Your task to perform on an android device: What's the news in Cambodia? Image 0: 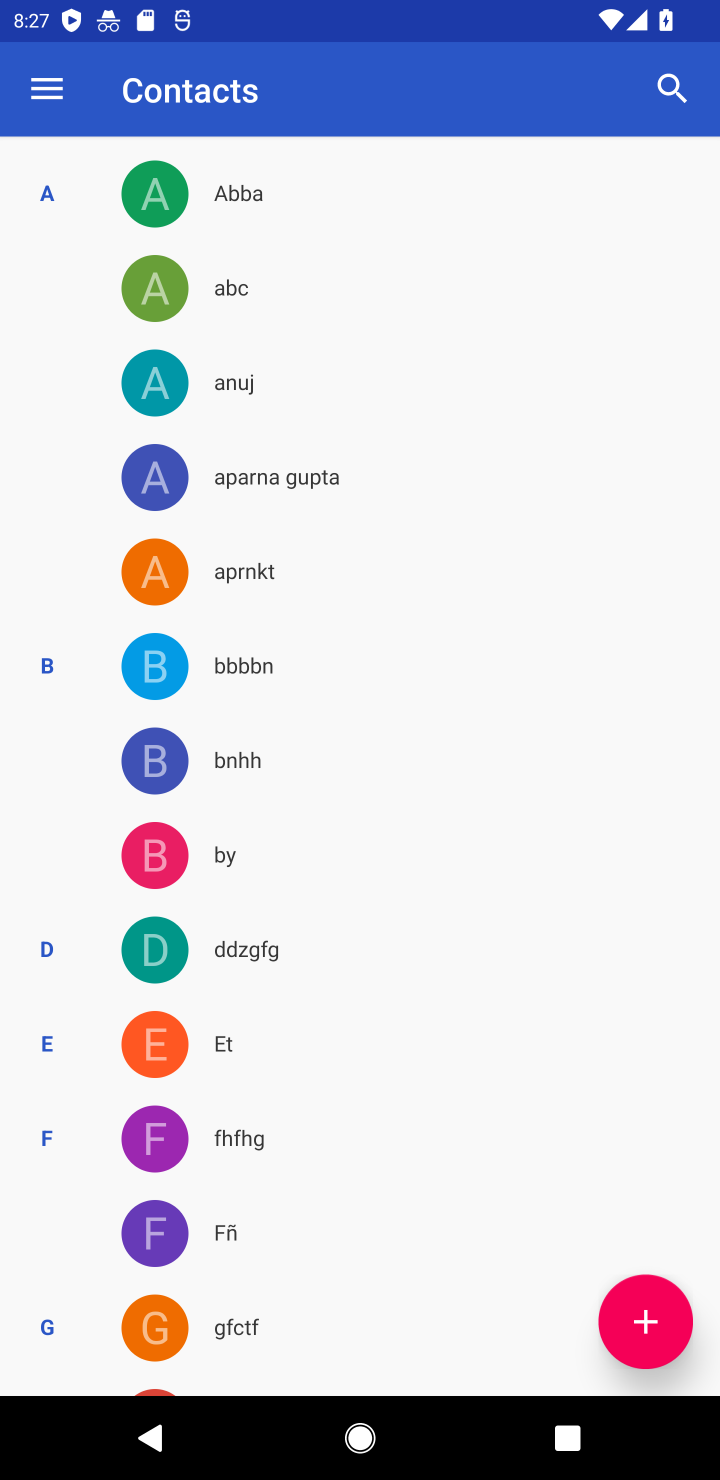
Step 0: press home button
Your task to perform on an android device: What's the news in Cambodia? Image 1: 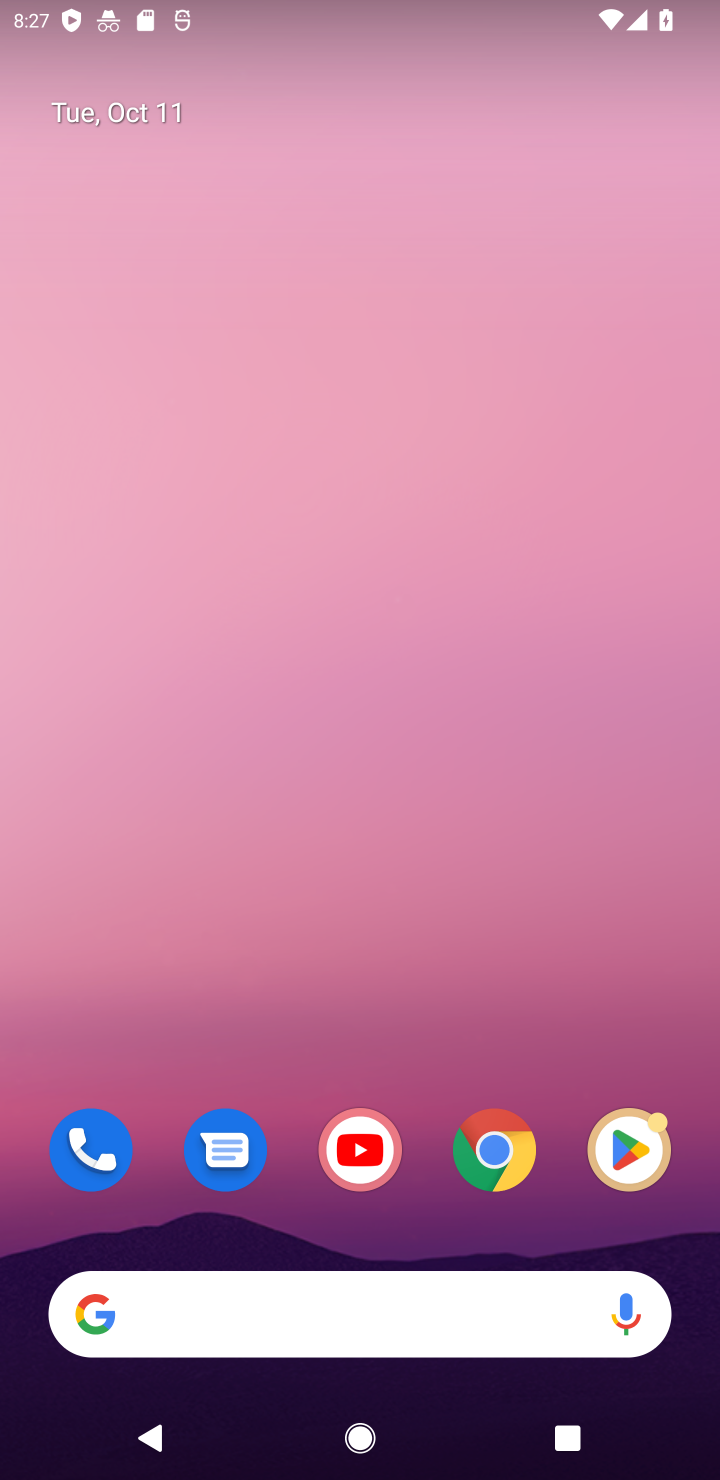
Step 1: click (509, 1171)
Your task to perform on an android device: What's the news in Cambodia? Image 2: 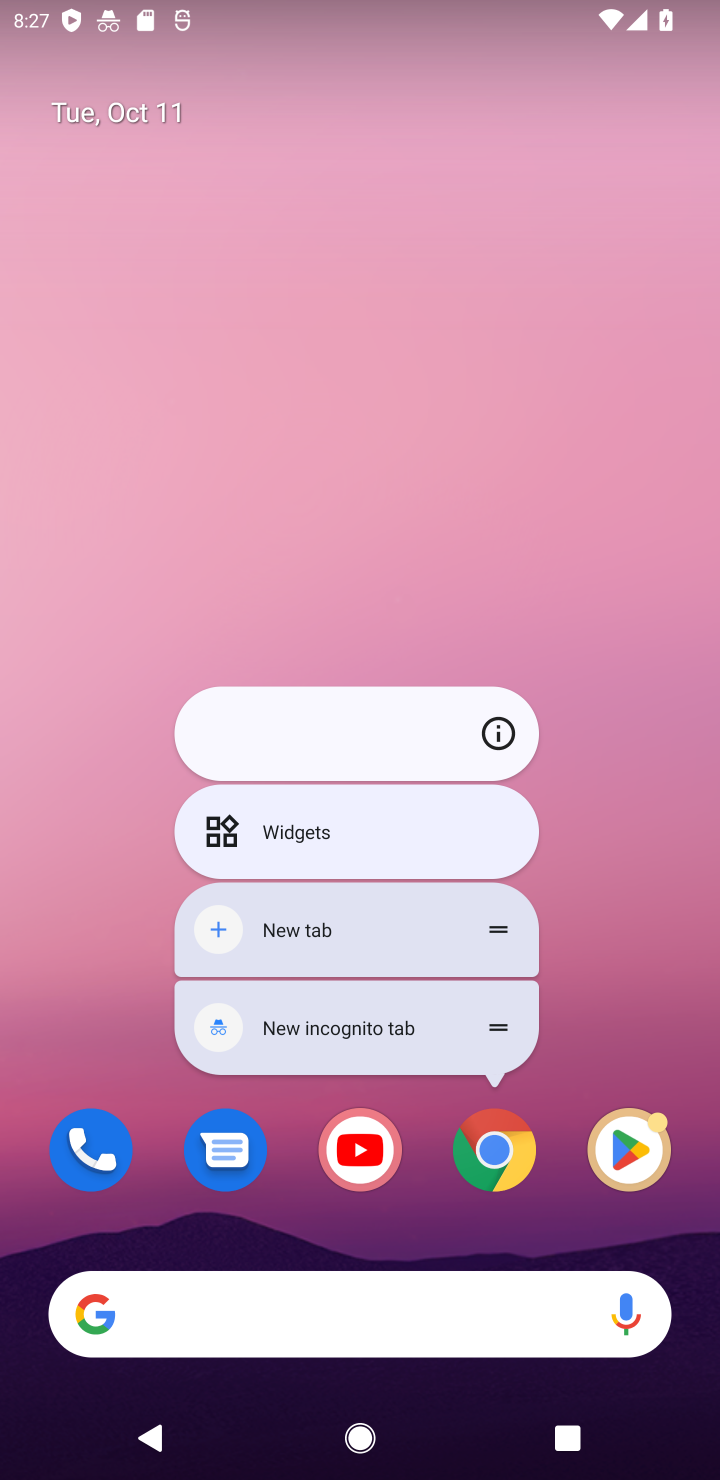
Step 2: click (488, 1155)
Your task to perform on an android device: What's the news in Cambodia? Image 3: 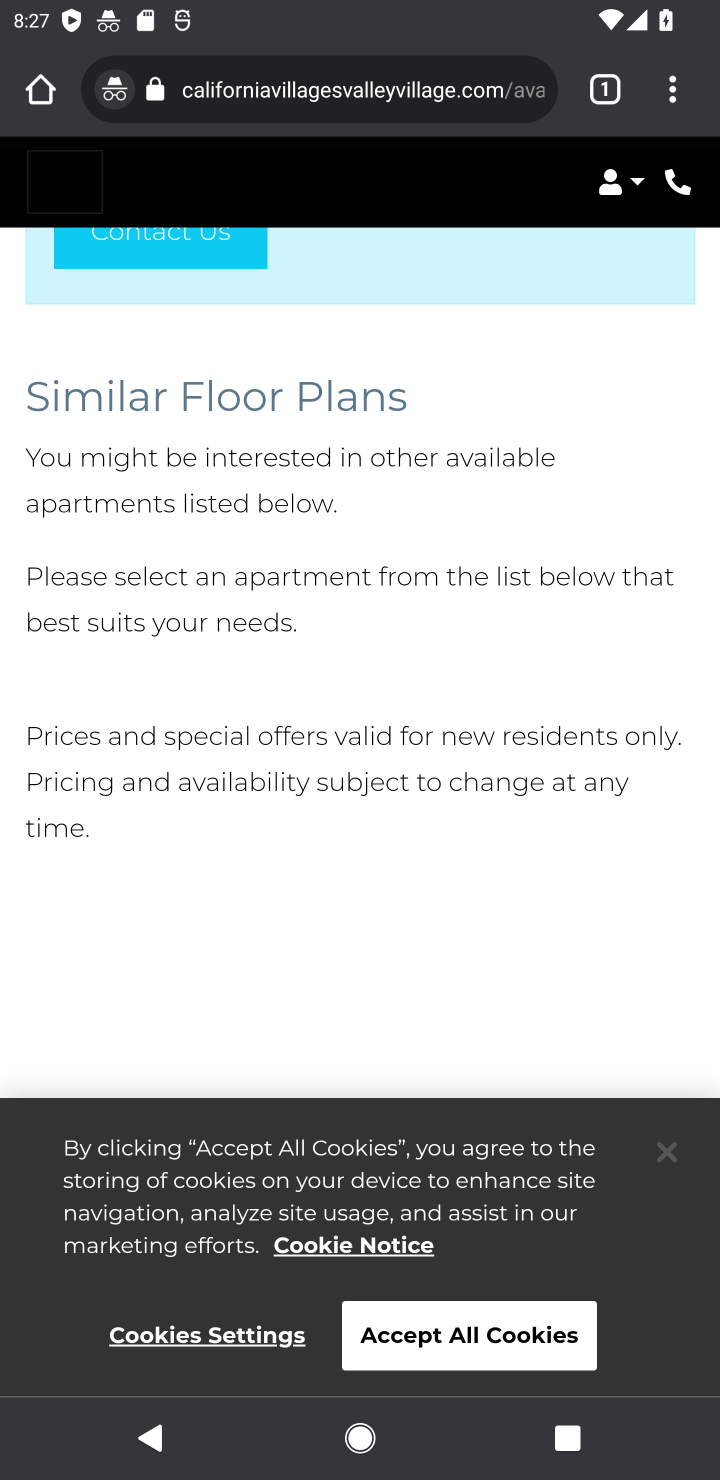
Step 3: click (311, 101)
Your task to perform on an android device: What's the news in Cambodia? Image 4: 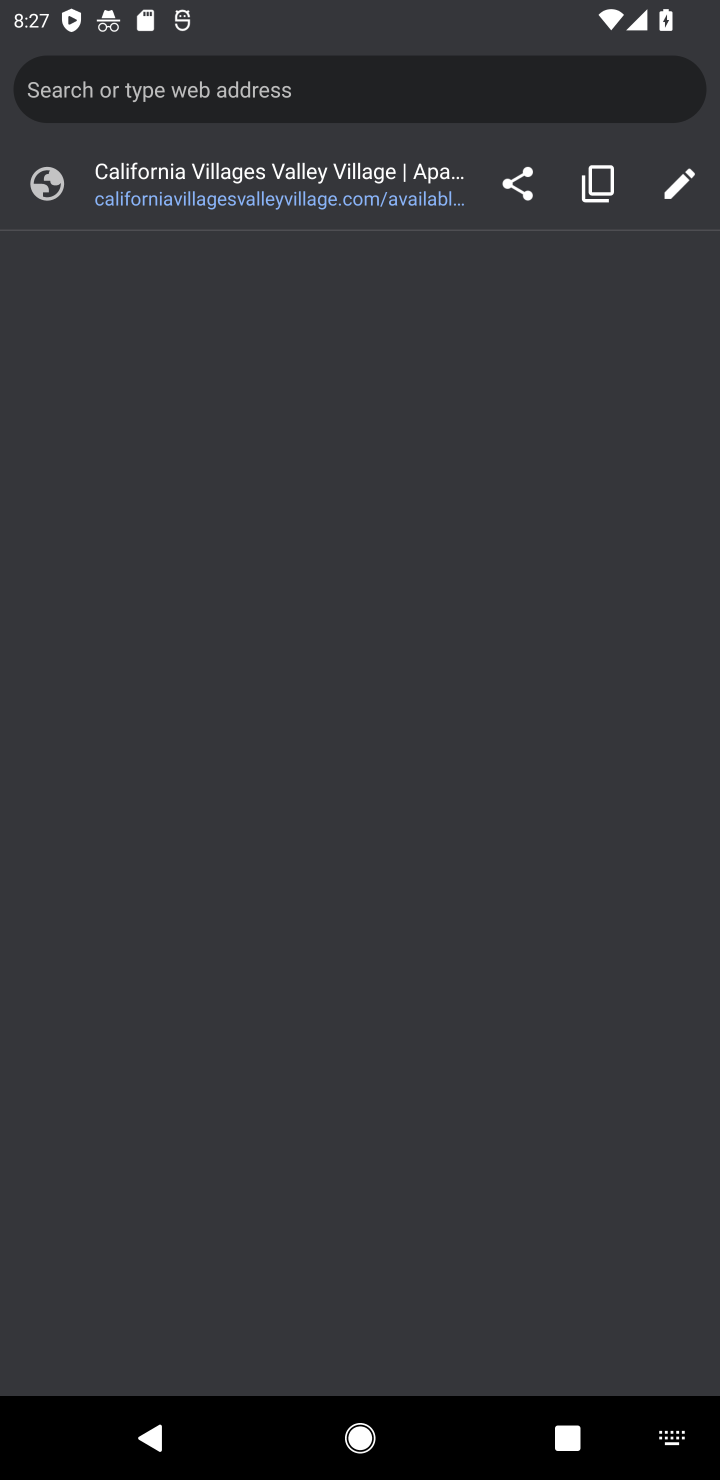
Step 4: type "cambodia"
Your task to perform on an android device: What's the news in Cambodia? Image 5: 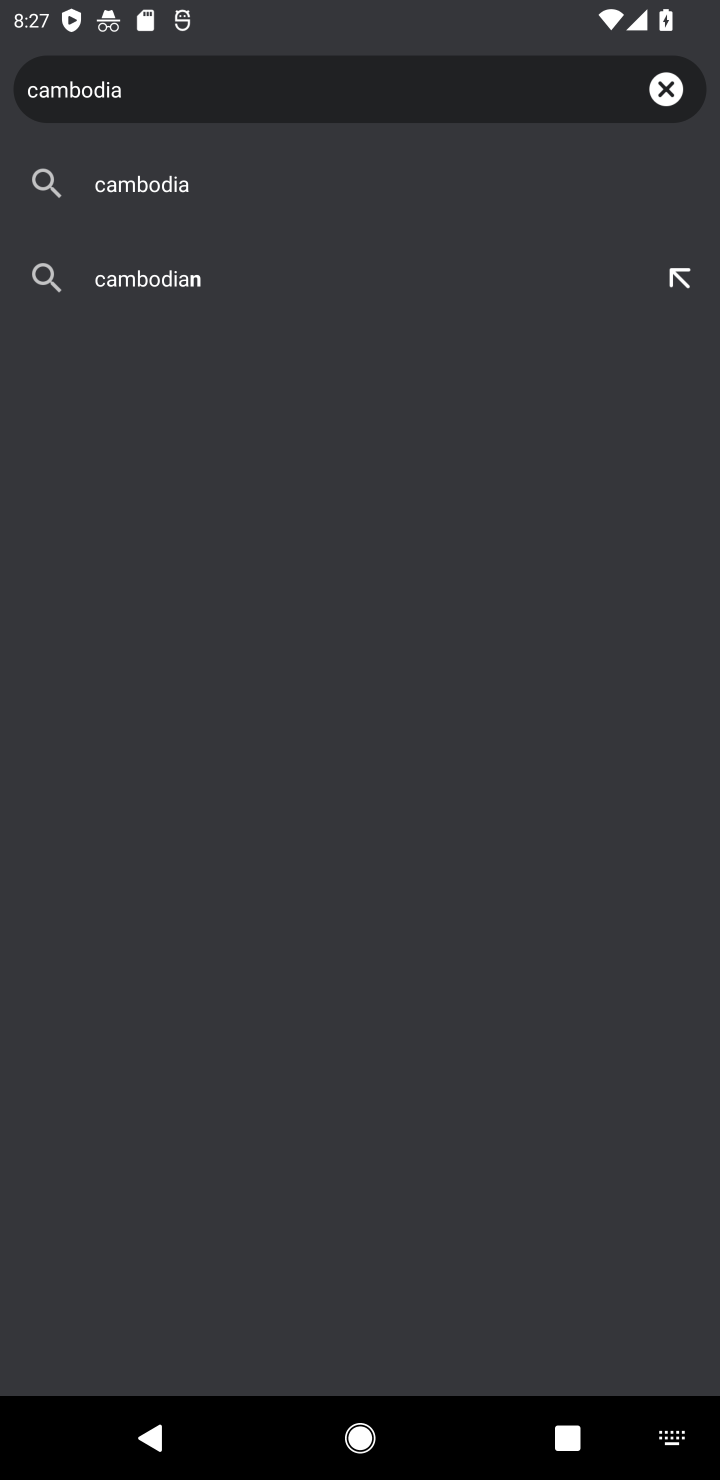
Step 5: click (154, 194)
Your task to perform on an android device: What's the news in Cambodia? Image 6: 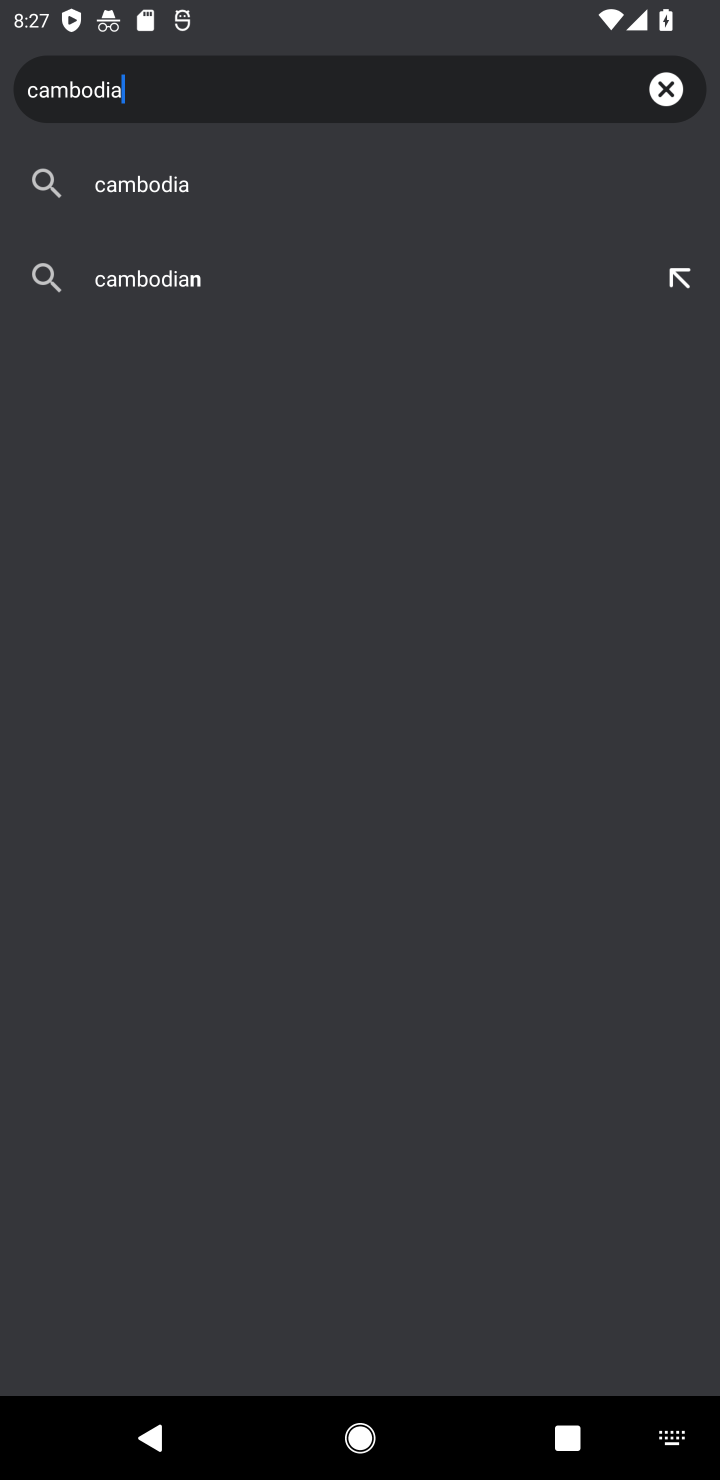
Step 6: click (158, 193)
Your task to perform on an android device: What's the news in Cambodia? Image 7: 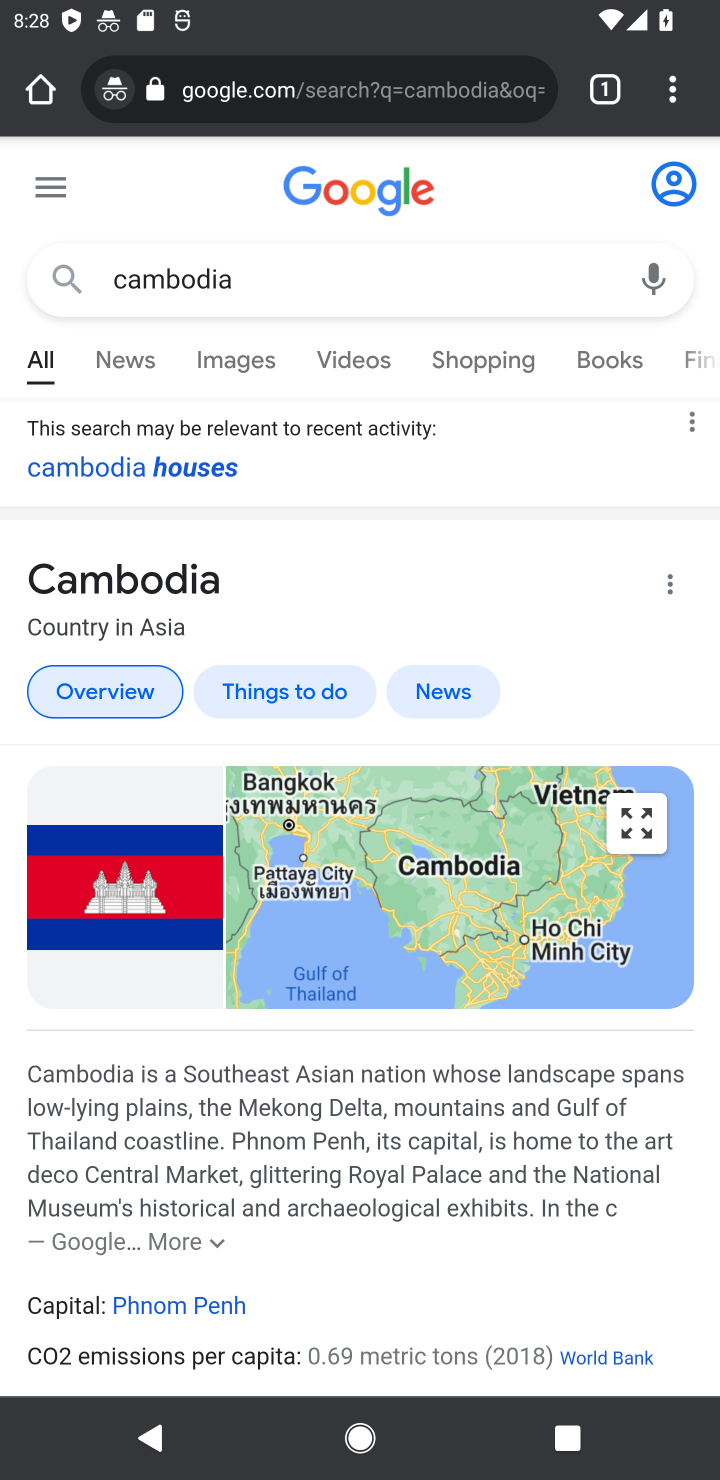
Step 7: click (114, 373)
Your task to perform on an android device: What's the news in Cambodia? Image 8: 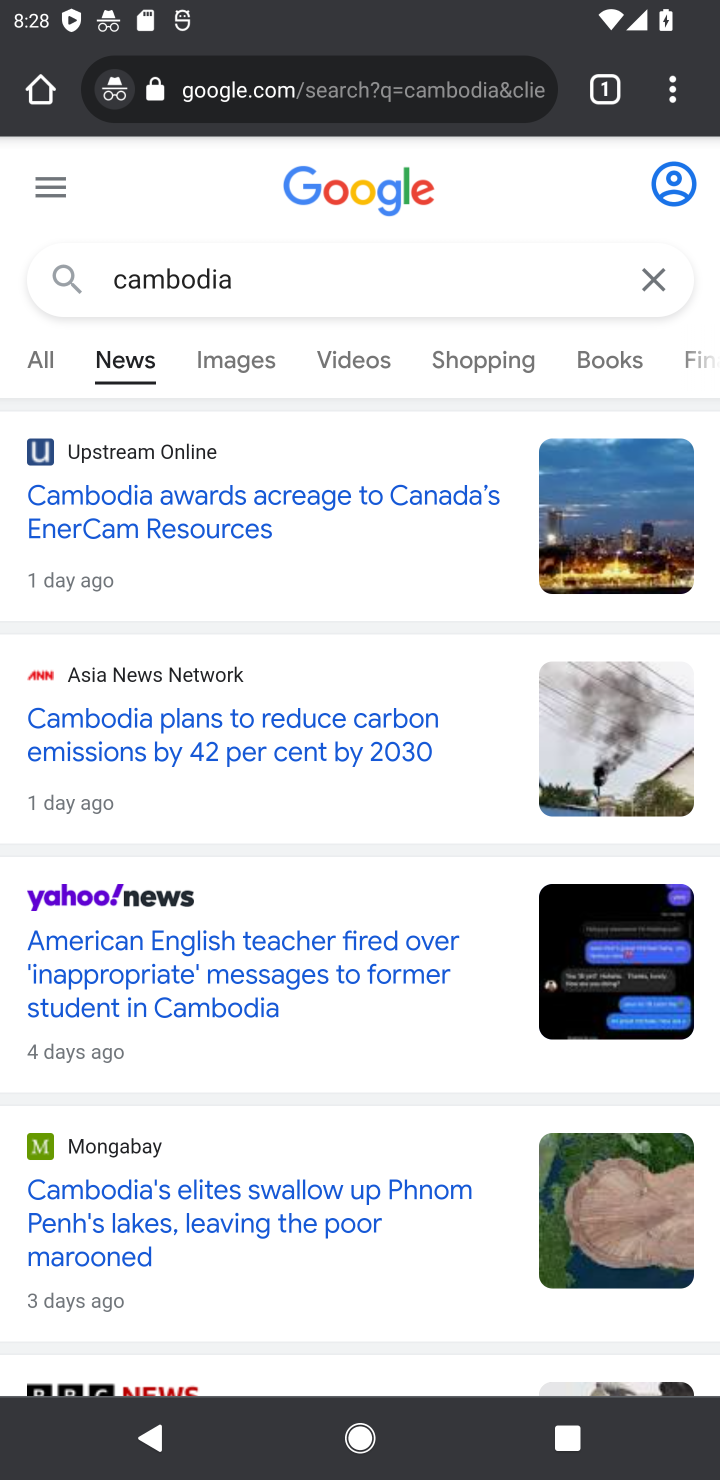
Step 8: click (155, 536)
Your task to perform on an android device: What's the news in Cambodia? Image 9: 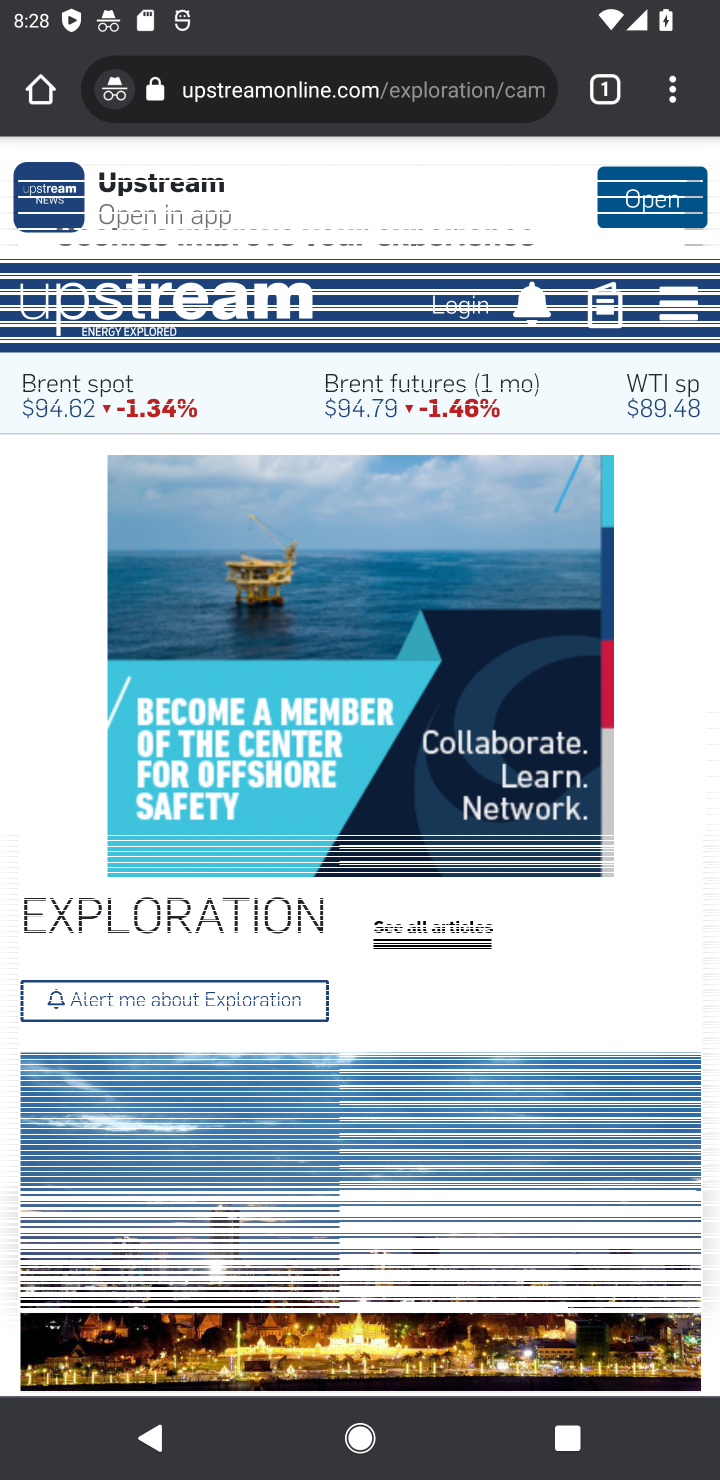
Step 9: task complete